Your task to perform on an android device: change notification settings in the gmail app Image 0: 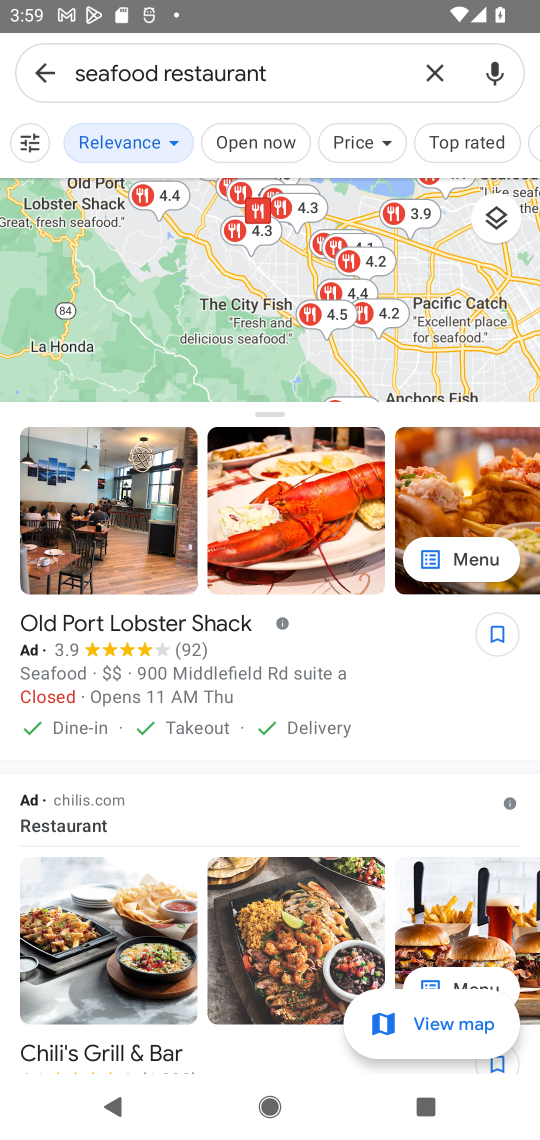
Step 0: press home button
Your task to perform on an android device: change notification settings in the gmail app Image 1: 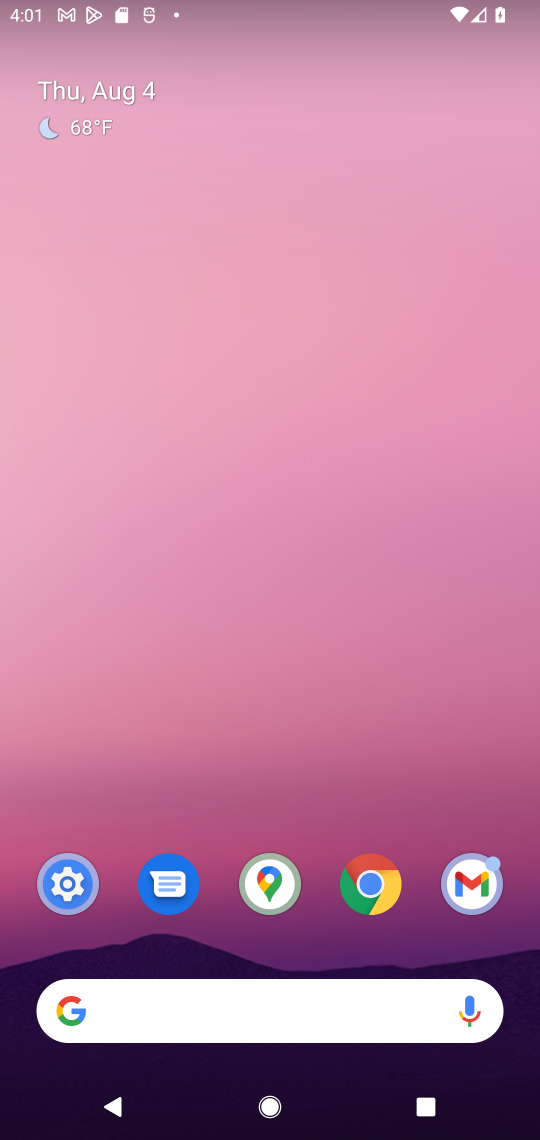
Step 1: click (477, 907)
Your task to perform on an android device: change notification settings in the gmail app Image 2: 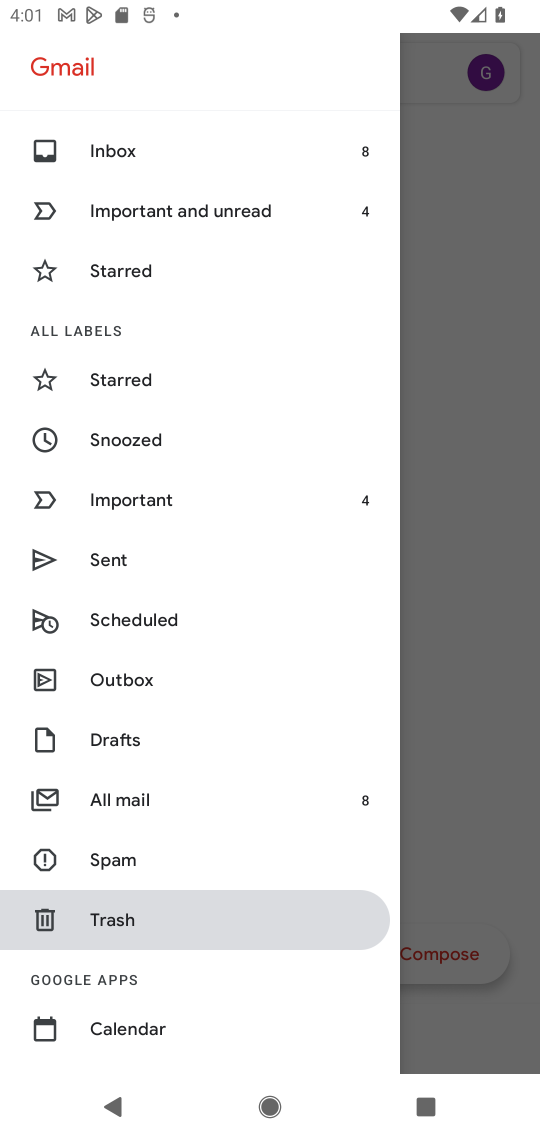
Step 2: task complete